Your task to perform on an android device: turn on javascript in the chrome app Image 0: 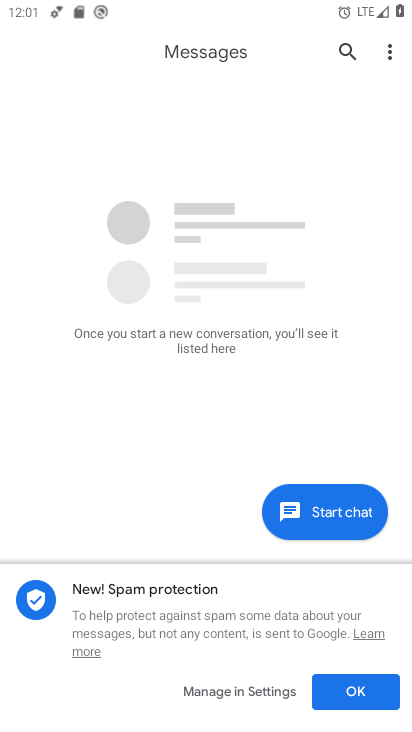
Step 0: press home button
Your task to perform on an android device: turn on javascript in the chrome app Image 1: 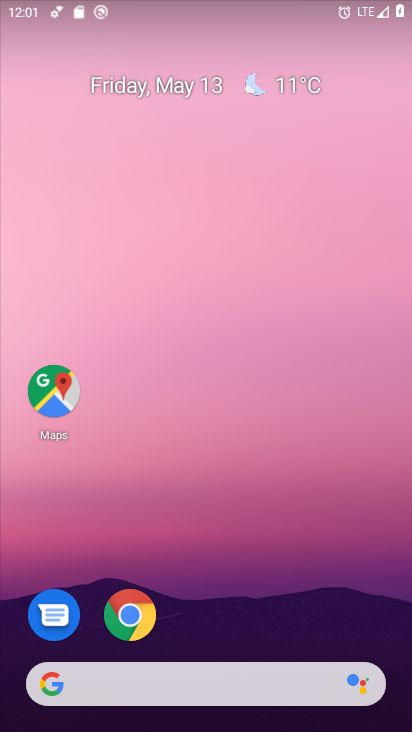
Step 1: click (124, 598)
Your task to perform on an android device: turn on javascript in the chrome app Image 2: 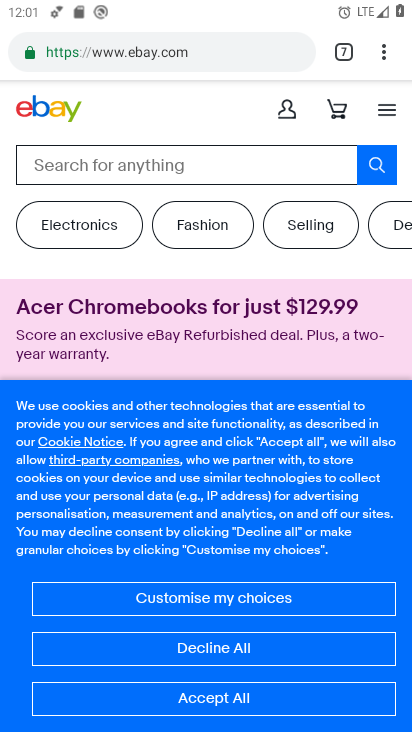
Step 2: click (383, 55)
Your task to perform on an android device: turn on javascript in the chrome app Image 3: 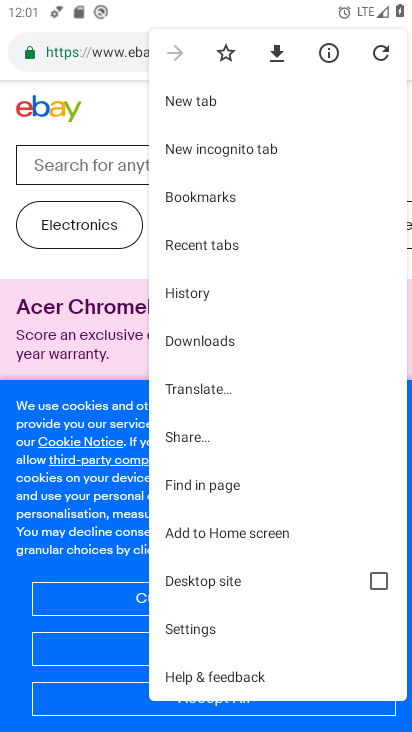
Step 3: click (210, 628)
Your task to perform on an android device: turn on javascript in the chrome app Image 4: 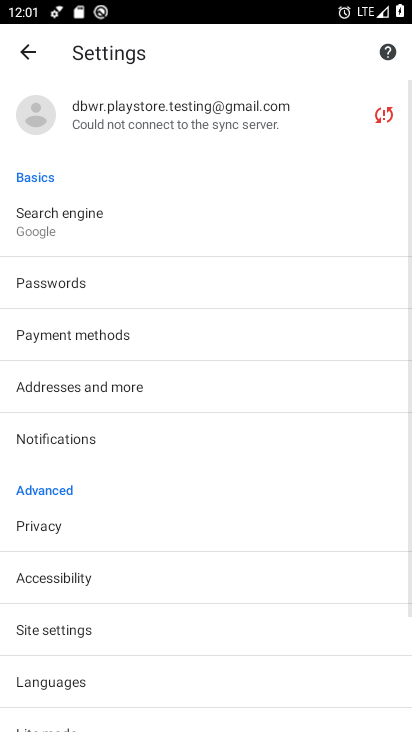
Step 4: click (225, 615)
Your task to perform on an android device: turn on javascript in the chrome app Image 5: 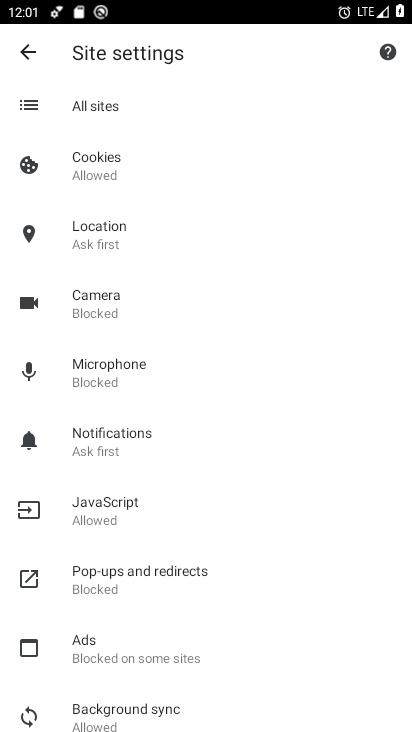
Step 5: click (172, 504)
Your task to perform on an android device: turn on javascript in the chrome app Image 6: 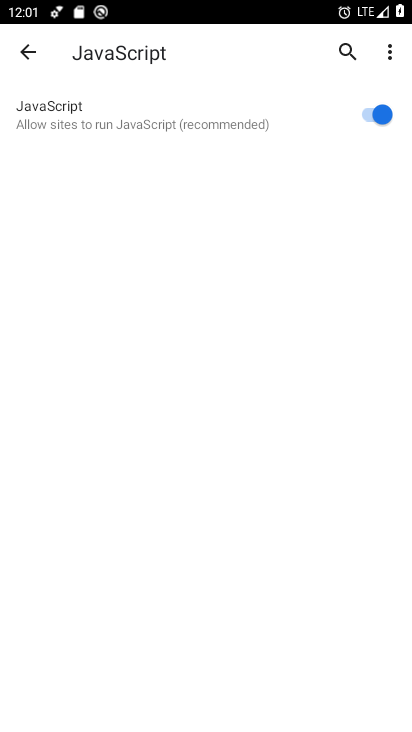
Step 6: task complete